Your task to perform on an android device: Open privacy settings Image 0: 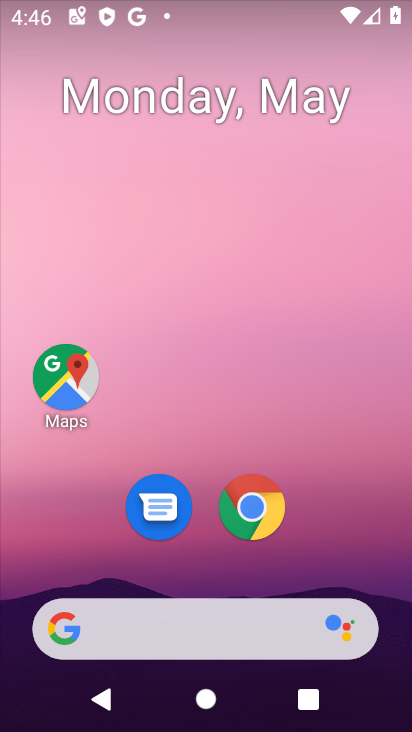
Step 0: drag from (406, 449) to (410, 96)
Your task to perform on an android device: Open privacy settings Image 1: 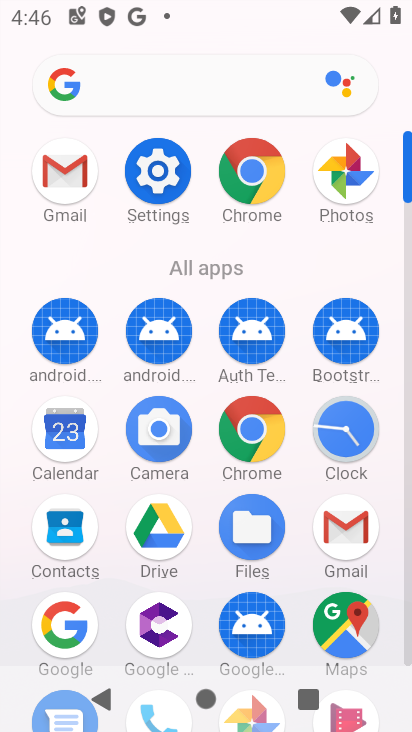
Step 1: click (147, 162)
Your task to perform on an android device: Open privacy settings Image 2: 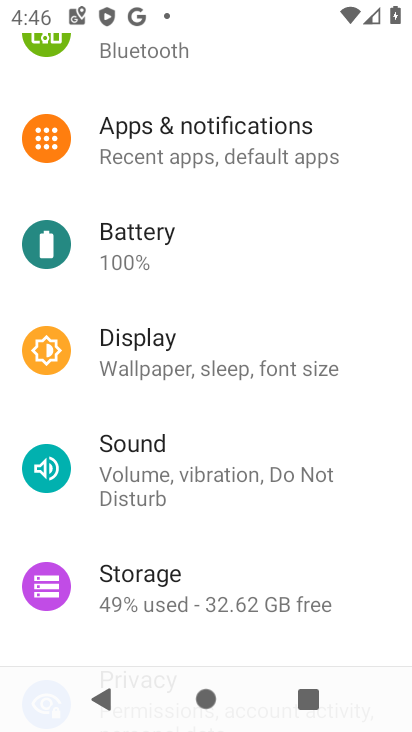
Step 2: drag from (200, 224) to (249, 629)
Your task to perform on an android device: Open privacy settings Image 3: 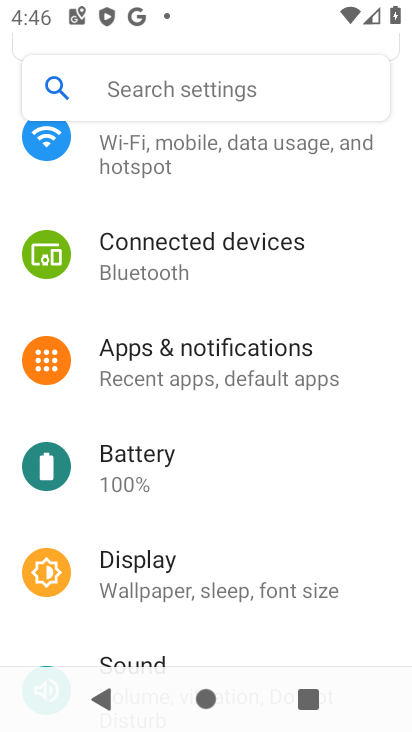
Step 3: drag from (204, 225) to (220, 650)
Your task to perform on an android device: Open privacy settings Image 4: 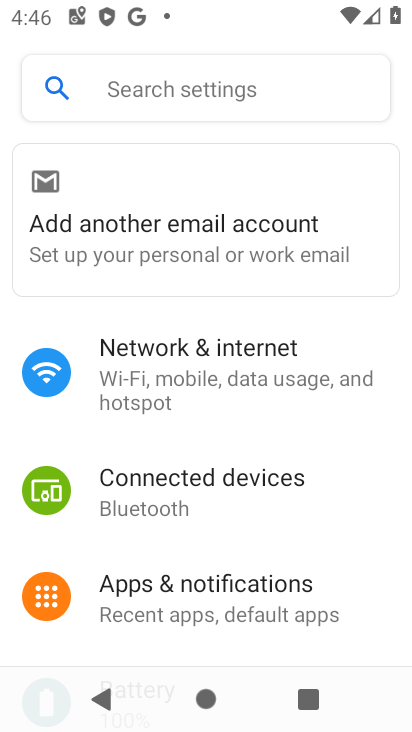
Step 4: drag from (181, 540) to (224, 133)
Your task to perform on an android device: Open privacy settings Image 5: 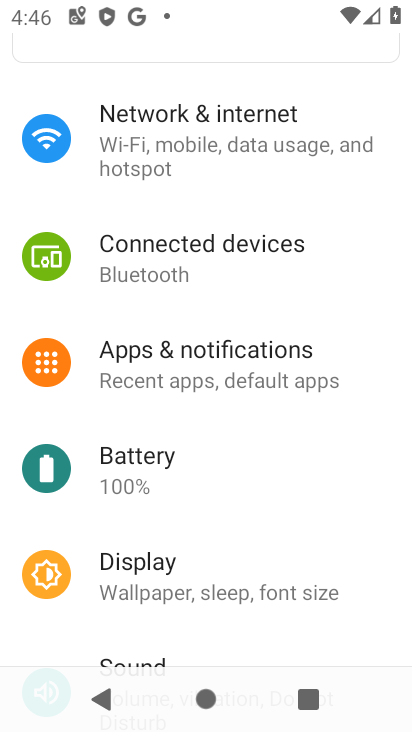
Step 5: drag from (228, 534) to (235, 129)
Your task to perform on an android device: Open privacy settings Image 6: 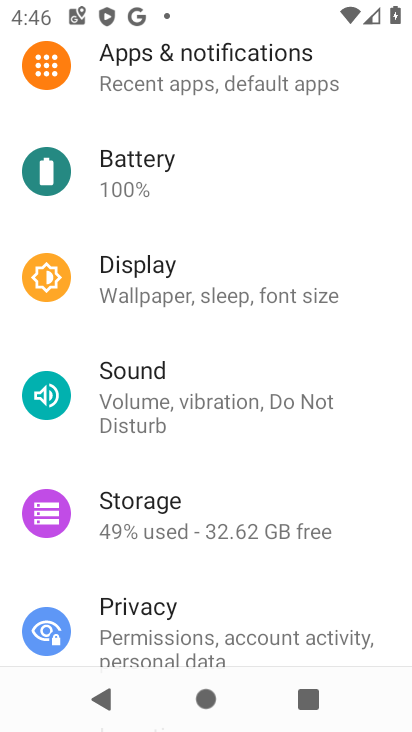
Step 6: click (162, 613)
Your task to perform on an android device: Open privacy settings Image 7: 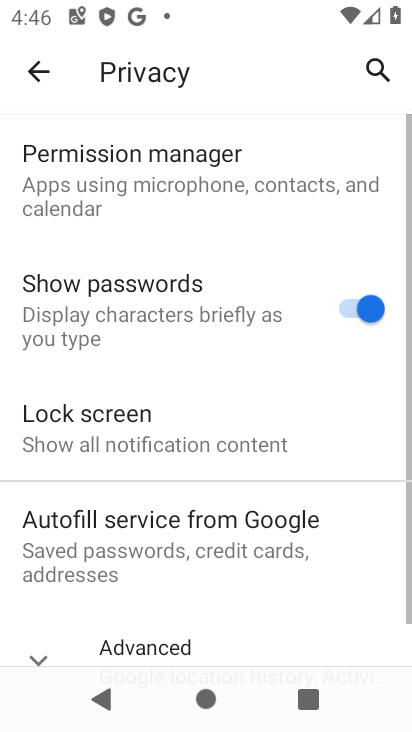
Step 7: task complete